Your task to perform on an android device: Check the news Image 0: 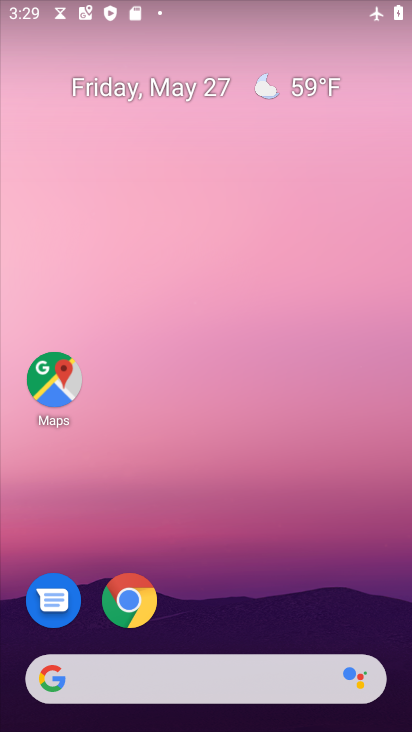
Step 0: drag from (237, 581) to (219, 163)
Your task to perform on an android device: Check the news Image 1: 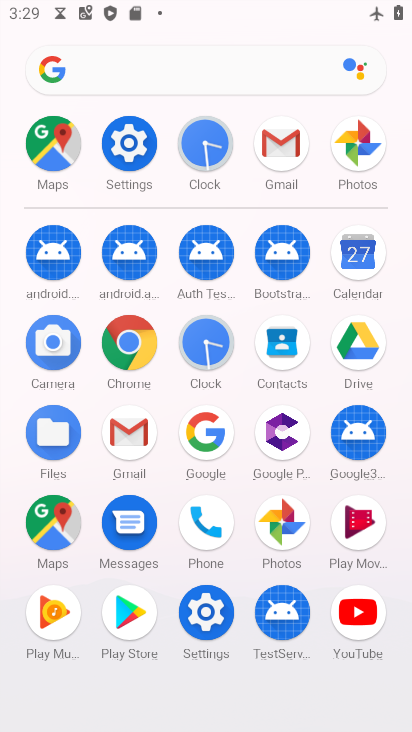
Step 1: click (201, 430)
Your task to perform on an android device: Check the news Image 2: 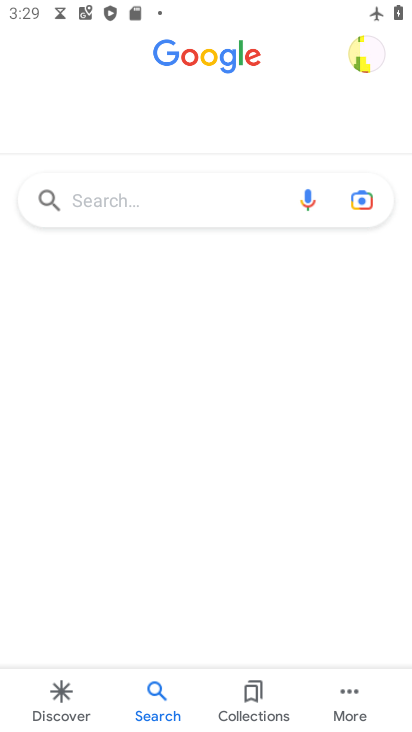
Step 2: click (163, 189)
Your task to perform on an android device: Check the news Image 3: 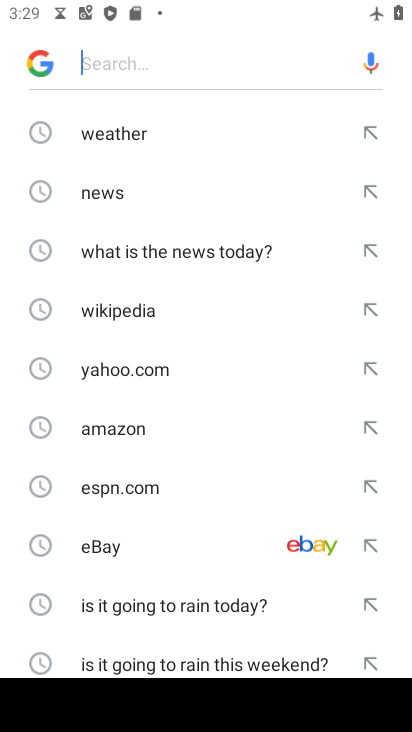
Step 3: click (112, 187)
Your task to perform on an android device: Check the news Image 4: 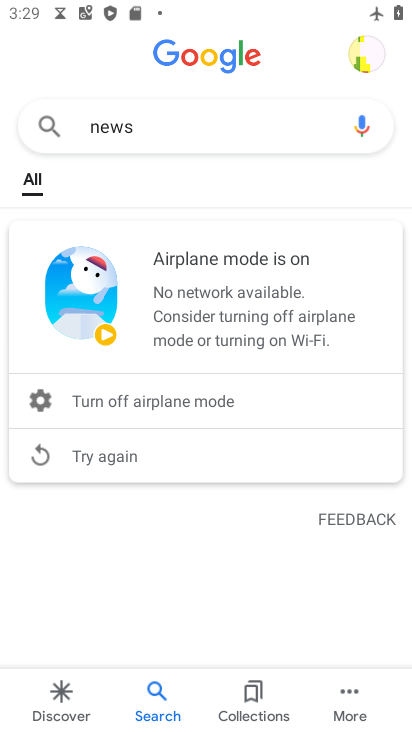
Step 4: task complete